Your task to perform on an android device: Open the web browser Image 0: 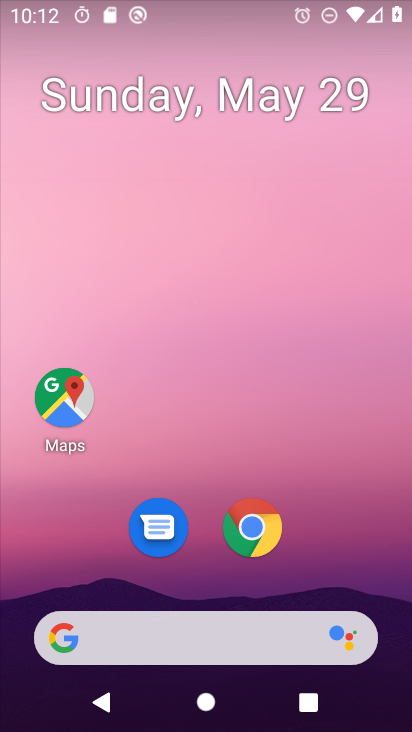
Step 0: click (261, 535)
Your task to perform on an android device: Open the web browser Image 1: 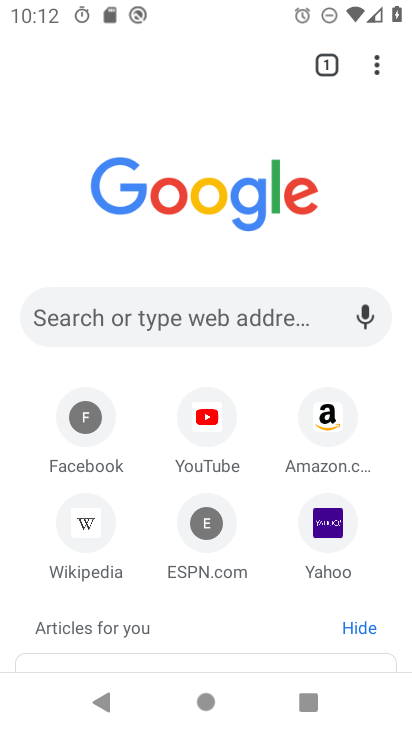
Step 1: task complete